Your task to perform on an android device: Do I have any events today? Image 0: 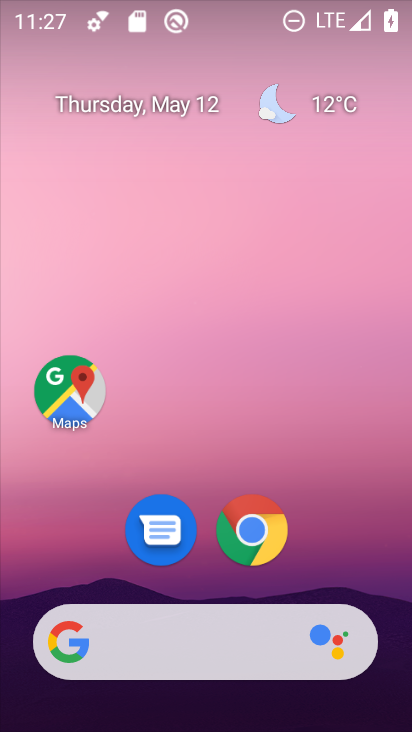
Step 0: drag from (186, 641) to (329, 195)
Your task to perform on an android device: Do I have any events today? Image 1: 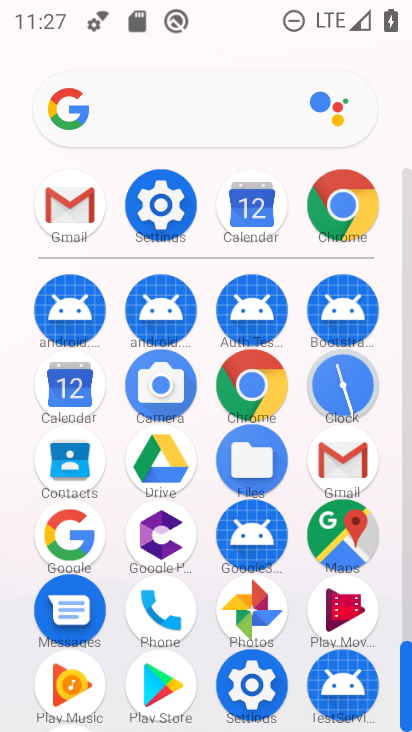
Step 1: click (69, 398)
Your task to perform on an android device: Do I have any events today? Image 2: 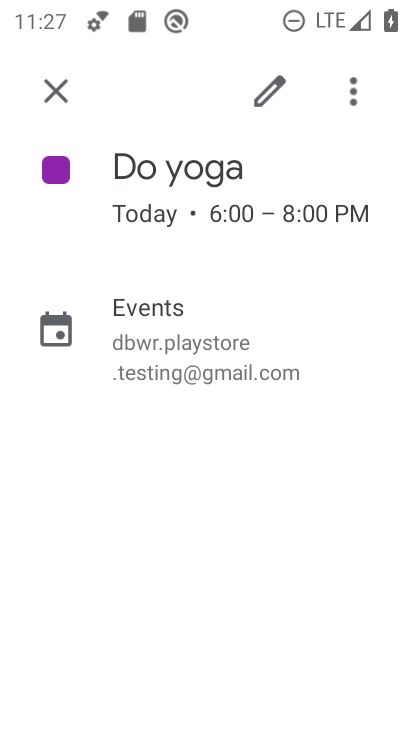
Step 2: task complete